Your task to perform on an android device: set default search engine in the chrome app Image 0: 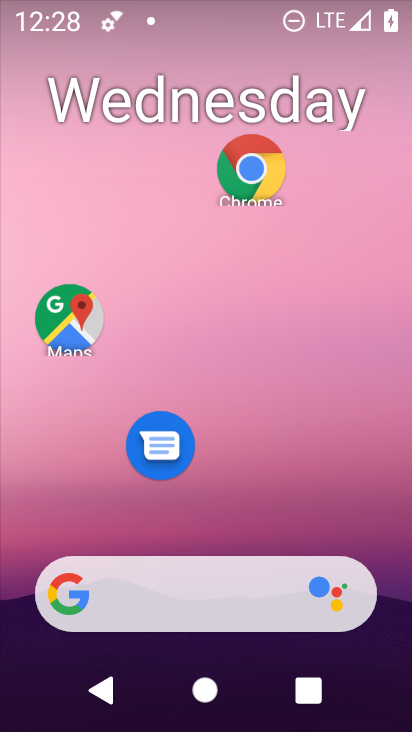
Step 0: drag from (217, 519) to (166, 30)
Your task to perform on an android device: set default search engine in the chrome app Image 1: 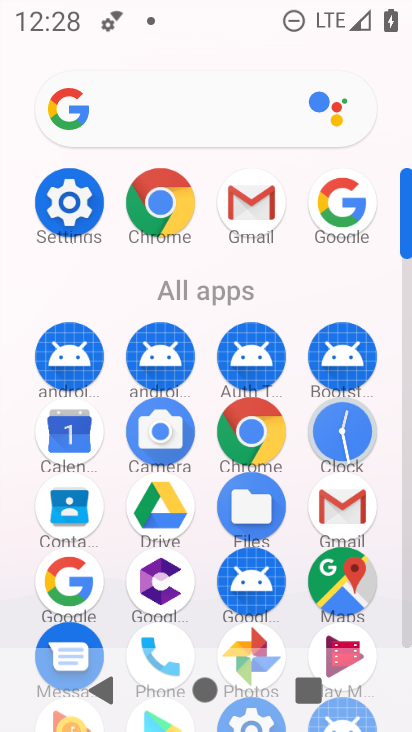
Step 1: click (165, 234)
Your task to perform on an android device: set default search engine in the chrome app Image 2: 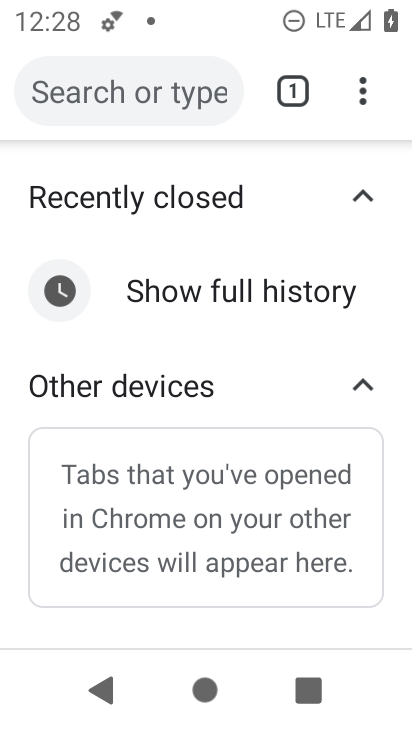
Step 2: click (361, 93)
Your task to perform on an android device: set default search engine in the chrome app Image 3: 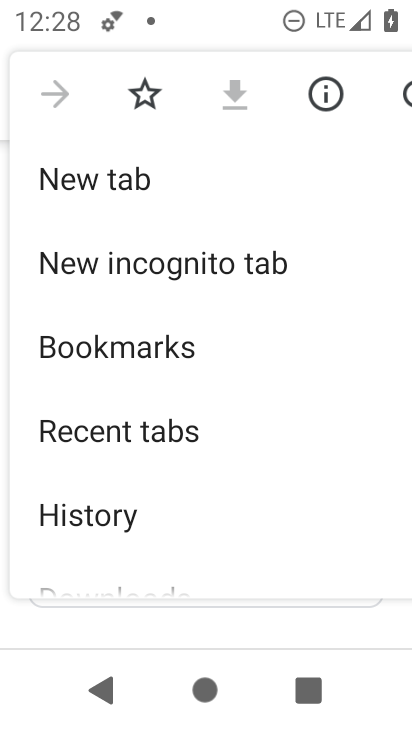
Step 3: drag from (138, 479) to (136, 157)
Your task to perform on an android device: set default search engine in the chrome app Image 4: 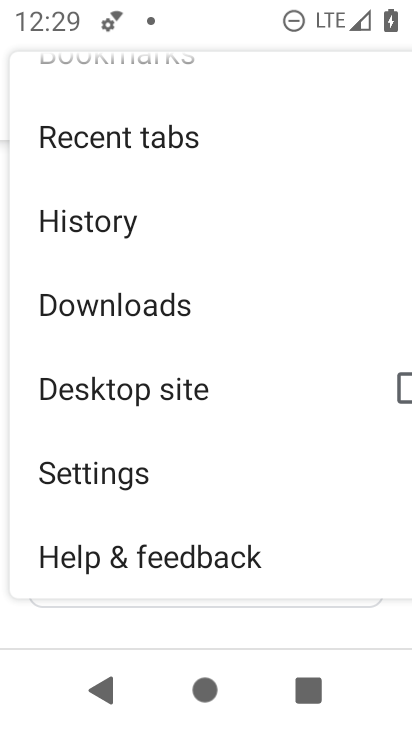
Step 4: click (82, 484)
Your task to perform on an android device: set default search engine in the chrome app Image 5: 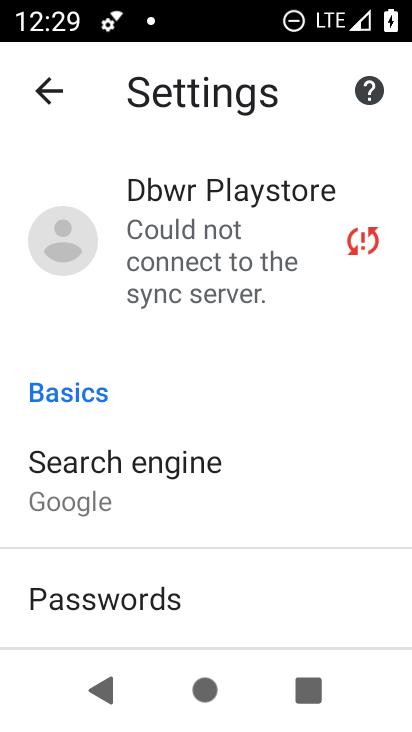
Step 5: drag from (90, 540) to (134, 246)
Your task to perform on an android device: set default search engine in the chrome app Image 6: 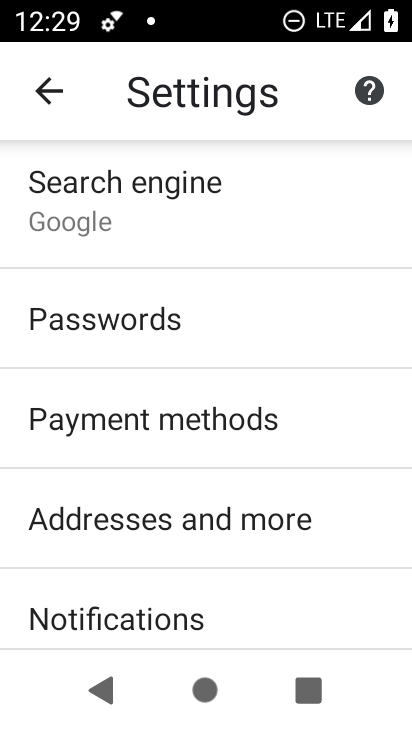
Step 6: drag from (230, 348) to (157, 669)
Your task to perform on an android device: set default search engine in the chrome app Image 7: 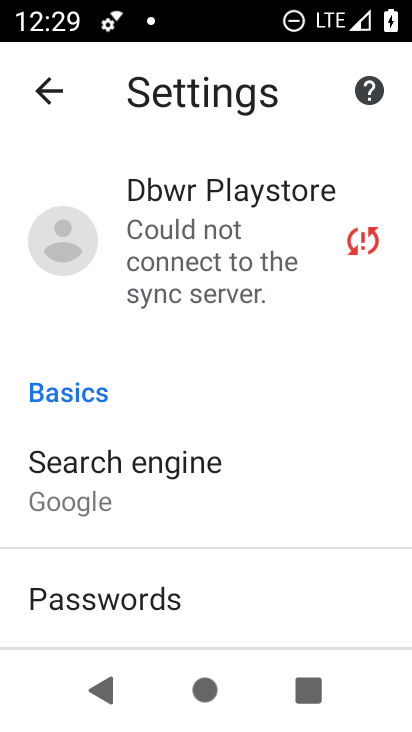
Step 7: click (87, 505)
Your task to perform on an android device: set default search engine in the chrome app Image 8: 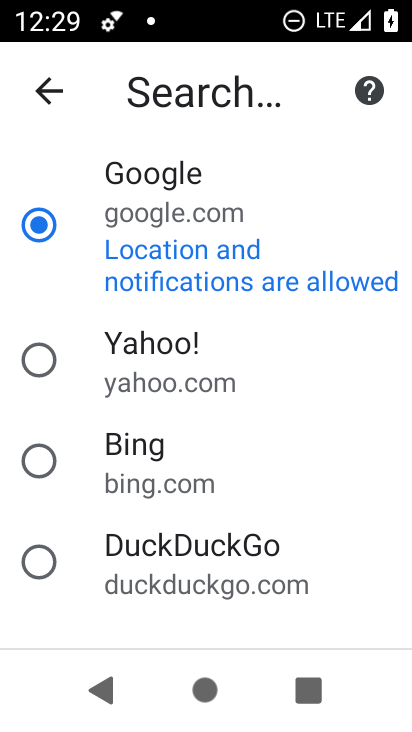
Step 8: click (32, 377)
Your task to perform on an android device: set default search engine in the chrome app Image 9: 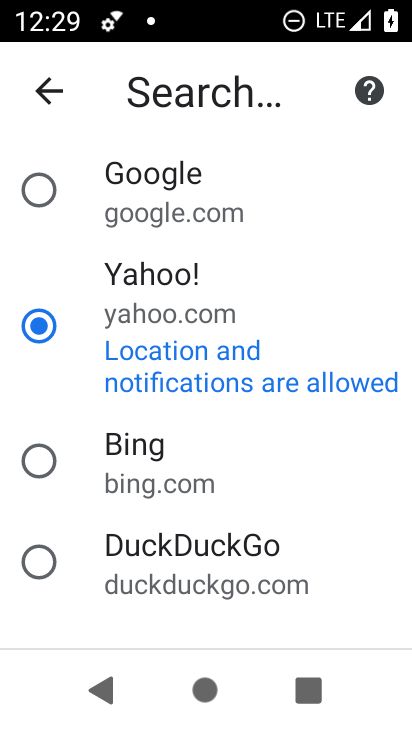
Step 9: task complete